Your task to perform on an android device: Is it going to rain this weekend? Image 0: 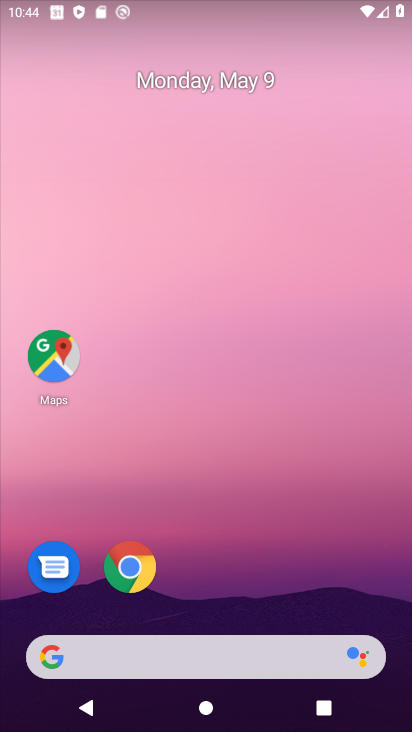
Step 0: click (192, 645)
Your task to perform on an android device: Is it going to rain this weekend? Image 1: 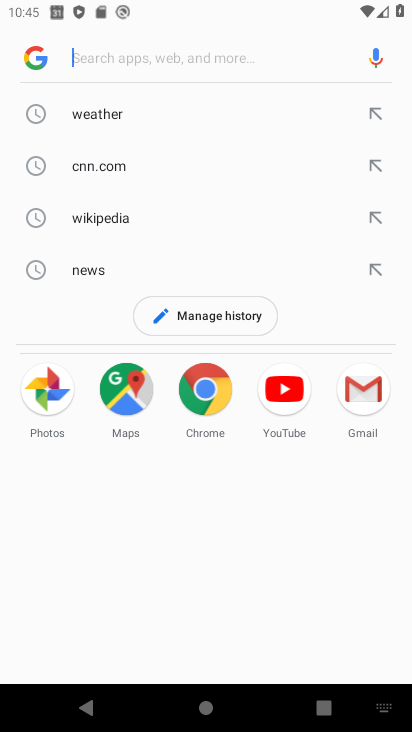
Step 1: type "Is it going to rain this weekend"
Your task to perform on an android device: Is it going to rain this weekend? Image 2: 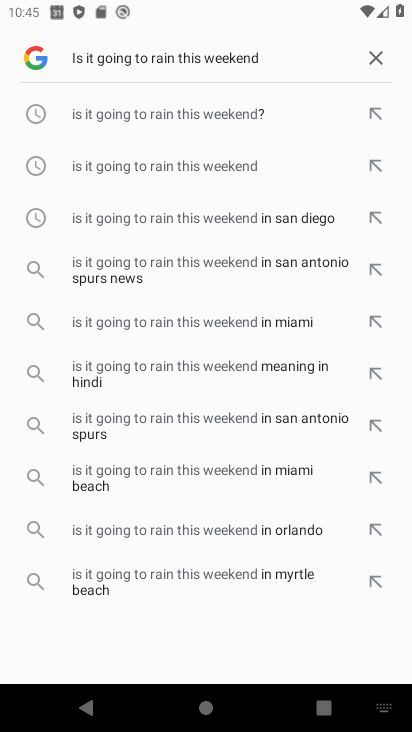
Step 2: click (204, 102)
Your task to perform on an android device: Is it going to rain this weekend? Image 3: 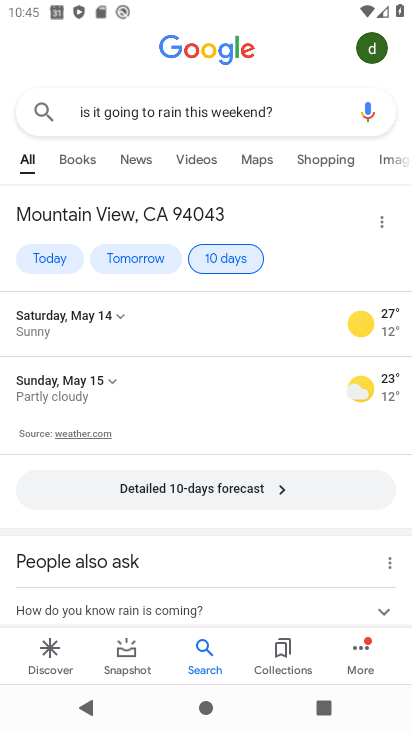
Step 3: task complete